Your task to perform on an android device: check battery use Image 0: 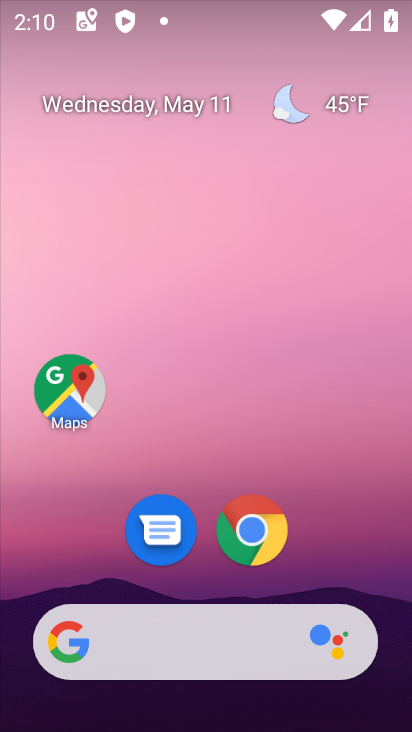
Step 0: click (163, 177)
Your task to perform on an android device: check battery use Image 1: 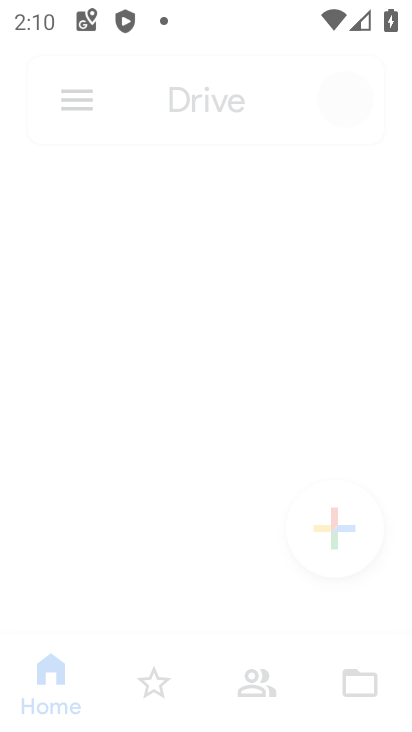
Step 1: drag from (338, 442) to (265, 10)
Your task to perform on an android device: check battery use Image 2: 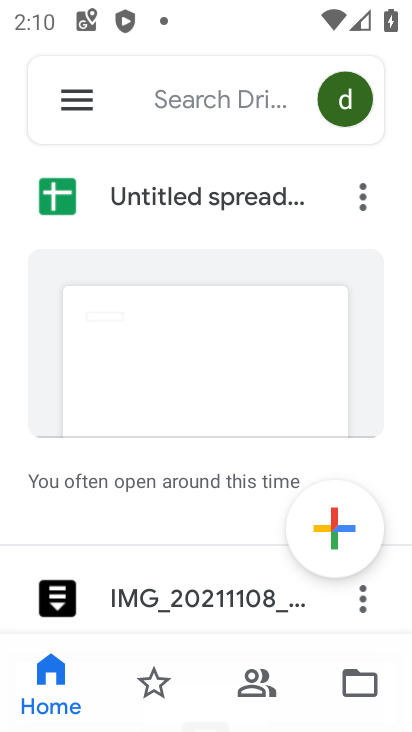
Step 2: press back button
Your task to perform on an android device: check battery use Image 3: 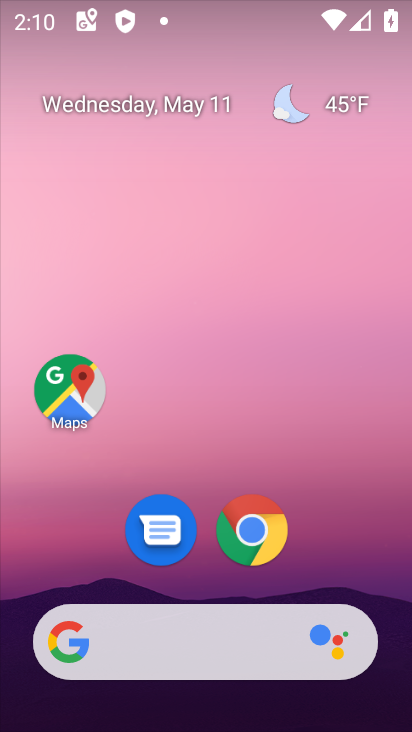
Step 3: drag from (326, 591) to (228, 115)
Your task to perform on an android device: check battery use Image 4: 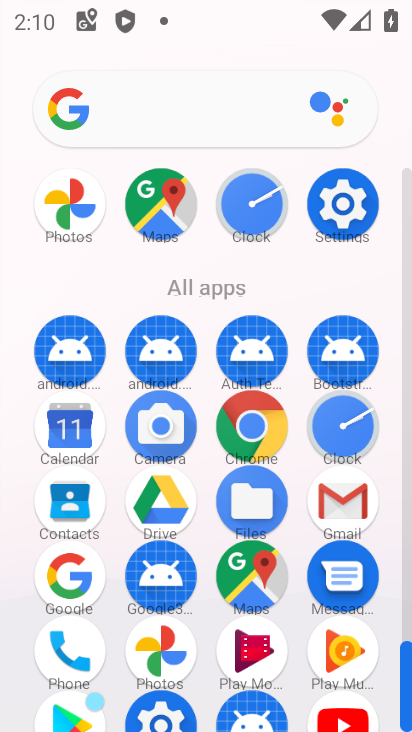
Step 4: click (167, 206)
Your task to perform on an android device: check battery use Image 5: 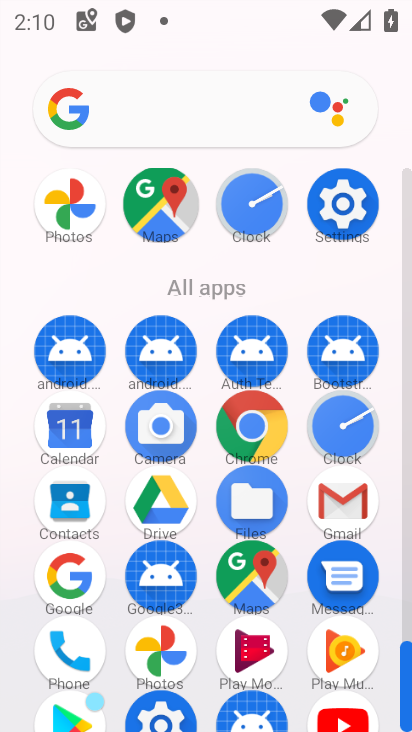
Step 5: click (167, 206)
Your task to perform on an android device: check battery use Image 6: 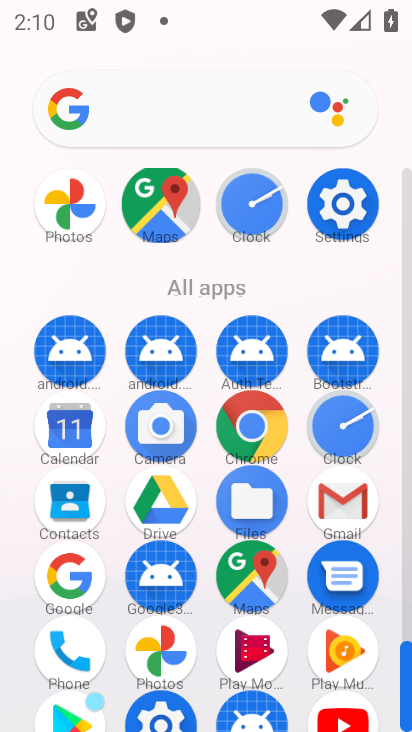
Step 6: click (166, 206)
Your task to perform on an android device: check battery use Image 7: 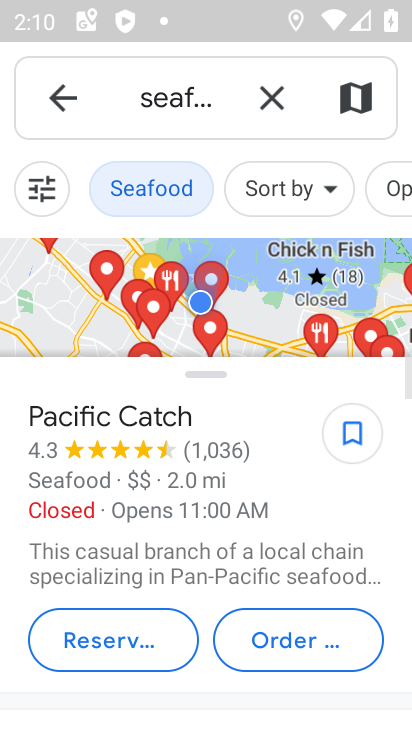
Step 7: press back button
Your task to perform on an android device: check battery use Image 8: 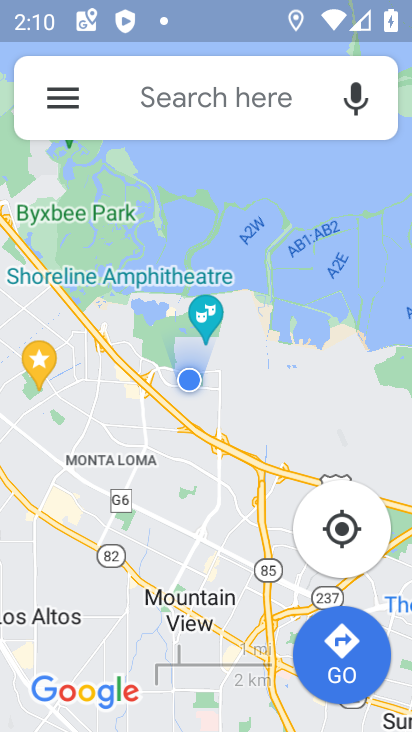
Step 8: press home button
Your task to perform on an android device: check battery use Image 9: 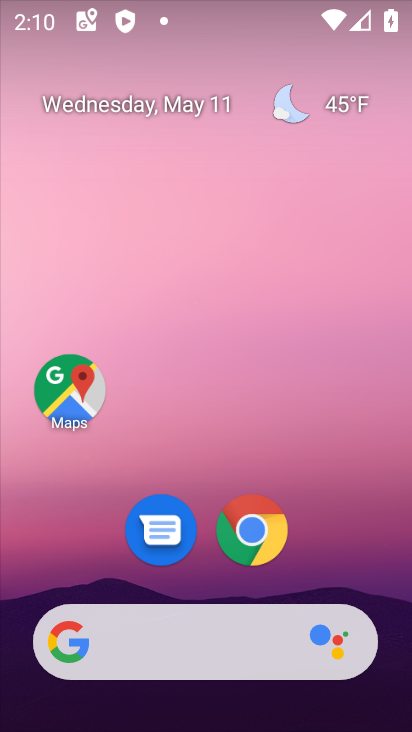
Step 9: drag from (290, 461) to (153, 86)
Your task to perform on an android device: check battery use Image 10: 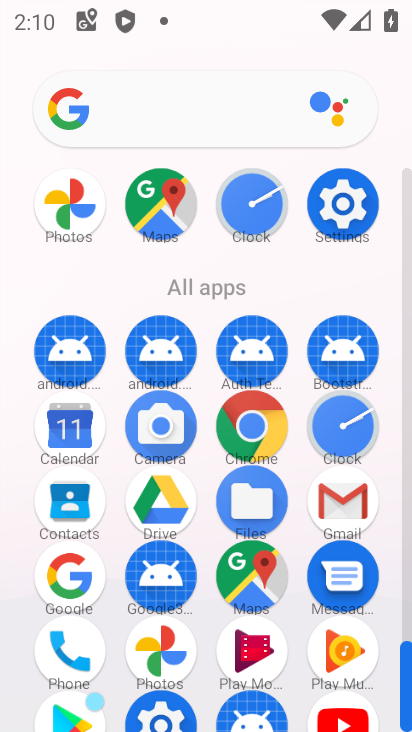
Step 10: click (148, 206)
Your task to perform on an android device: check battery use Image 11: 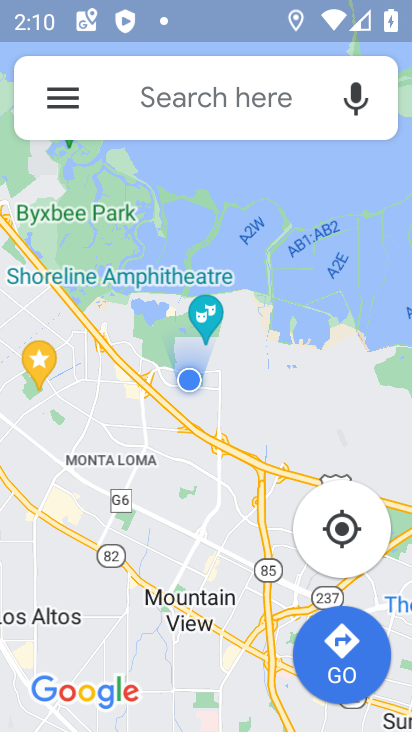
Step 11: press home button
Your task to perform on an android device: check battery use Image 12: 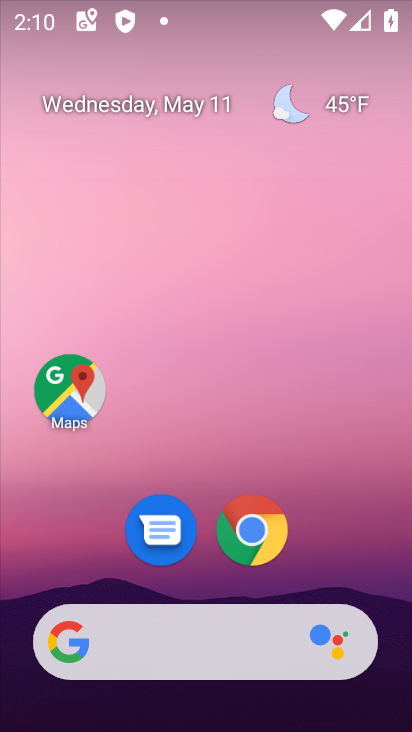
Step 12: drag from (347, 564) to (213, 109)
Your task to perform on an android device: check battery use Image 13: 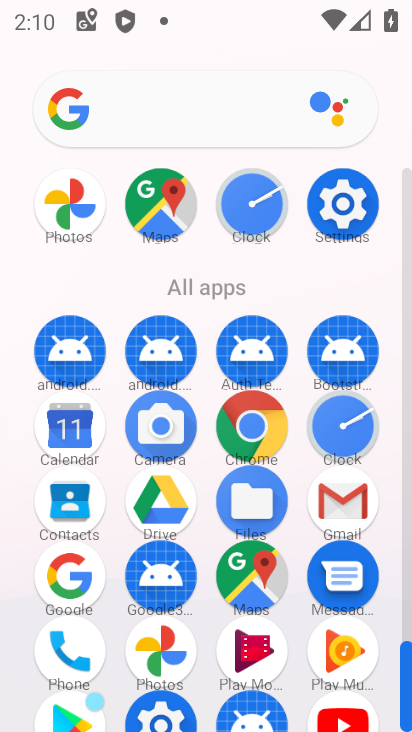
Step 13: click (326, 215)
Your task to perform on an android device: check battery use Image 14: 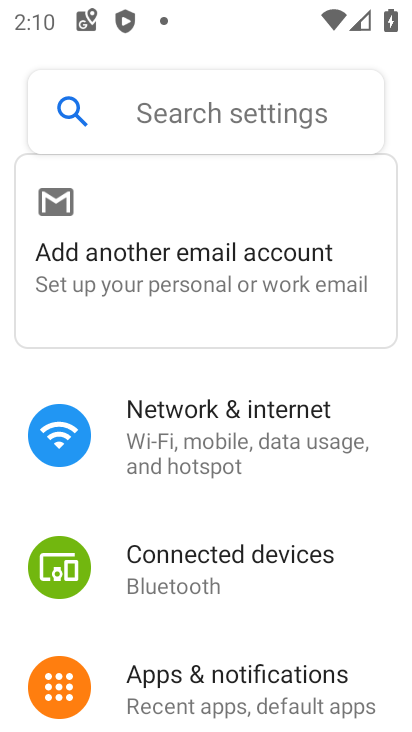
Step 14: drag from (257, 558) to (168, 185)
Your task to perform on an android device: check battery use Image 15: 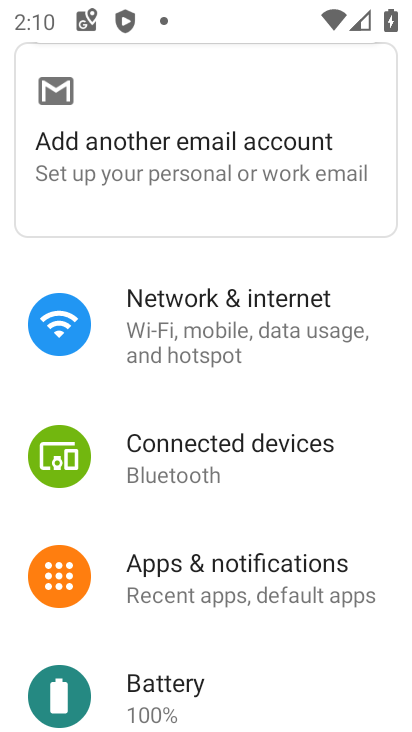
Step 15: drag from (216, 482) to (209, 227)
Your task to perform on an android device: check battery use Image 16: 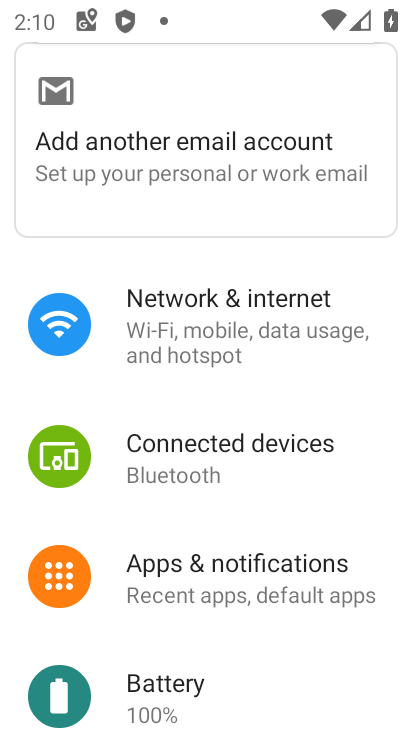
Step 16: click (156, 707)
Your task to perform on an android device: check battery use Image 17: 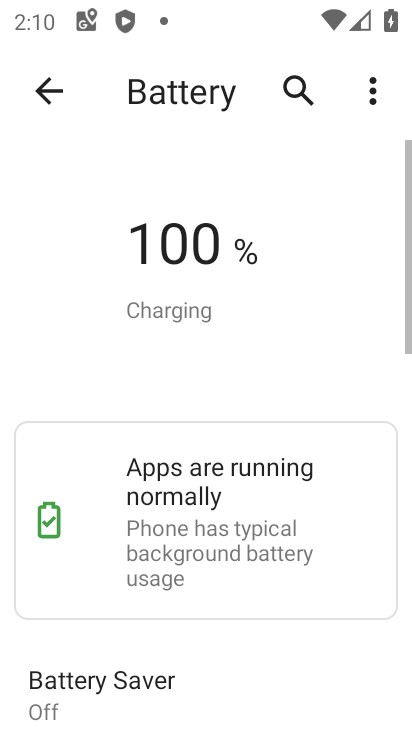
Step 17: task complete